Your task to perform on an android device: Find coffee shops on Maps Image 0: 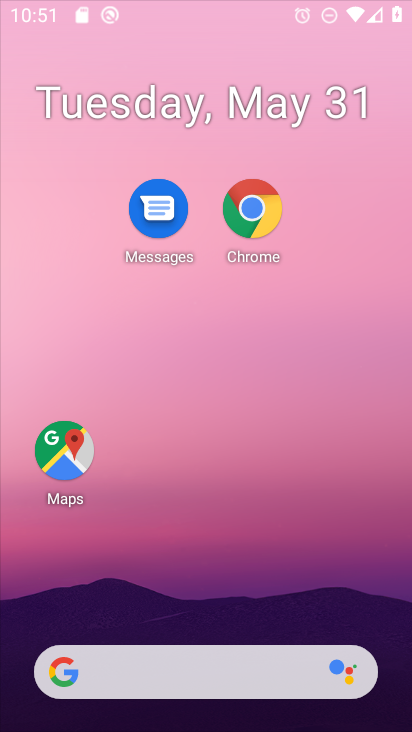
Step 0: press home button
Your task to perform on an android device: Find coffee shops on Maps Image 1: 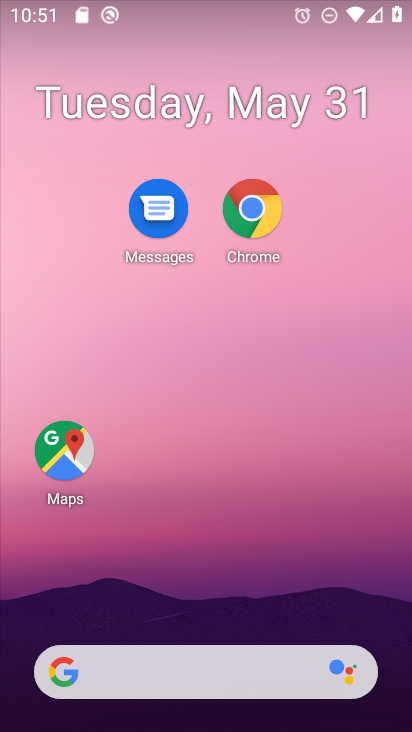
Step 1: drag from (210, 610) to (205, 40)
Your task to perform on an android device: Find coffee shops on Maps Image 2: 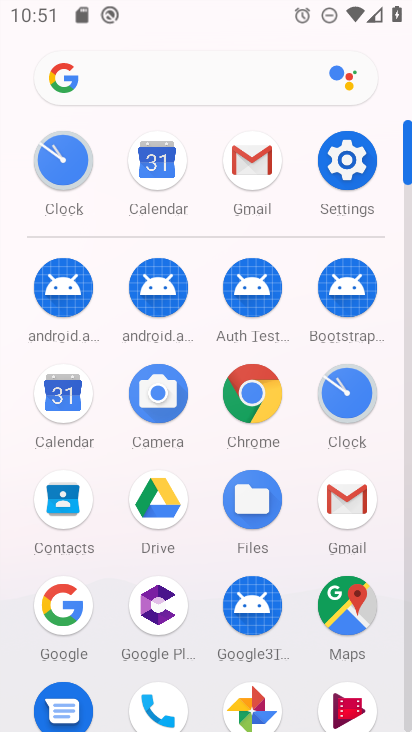
Step 2: click (350, 604)
Your task to perform on an android device: Find coffee shops on Maps Image 3: 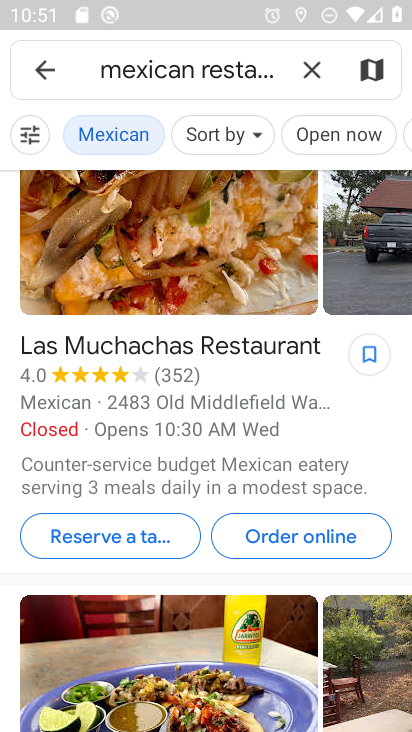
Step 3: click (308, 65)
Your task to perform on an android device: Find coffee shops on Maps Image 4: 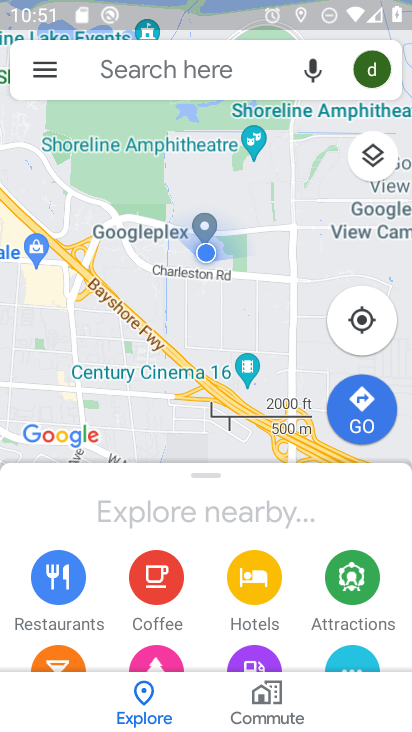
Step 4: click (152, 68)
Your task to perform on an android device: Find coffee shops on Maps Image 5: 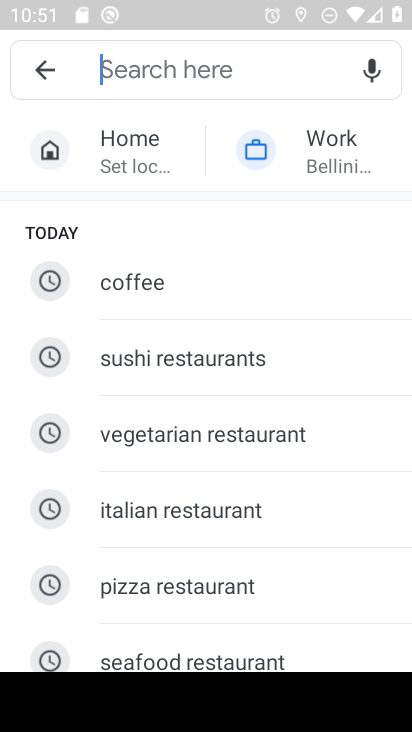
Step 5: click (179, 279)
Your task to perform on an android device: Find coffee shops on Maps Image 6: 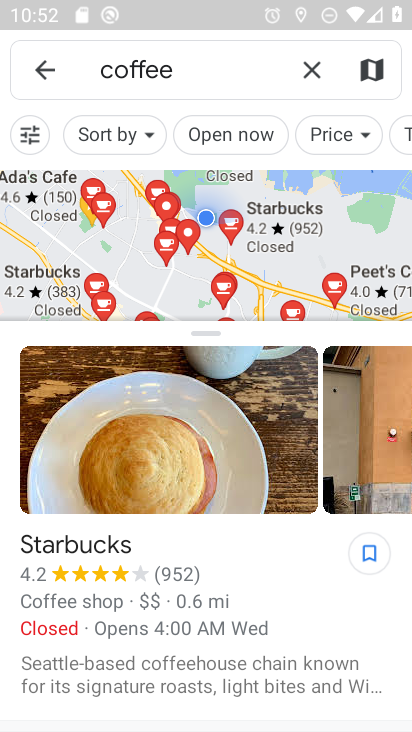
Step 6: task complete